Your task to perform on an android device: Open Chrome and go to the settings page Image 0: 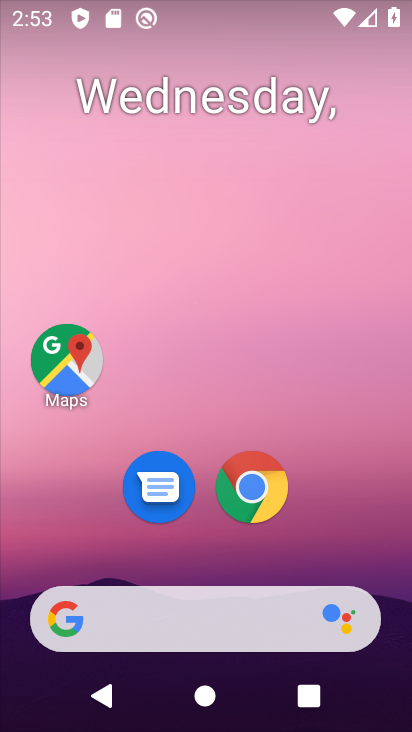
Step 0: drag from (358, 555) to (353, 156)
Your task to perform on an android device: Open Chrome and go to the settings page Image 1: 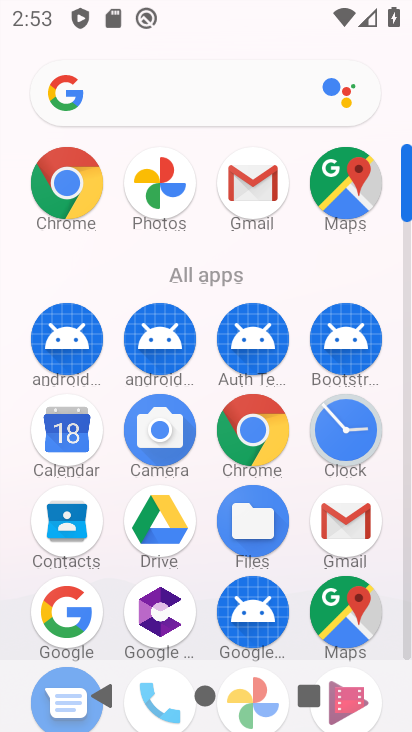
Step 1: drag from (304, 570) to (298, 312)
Your task to perform on an android device: Open Chrome and go to the settings page Image 2: 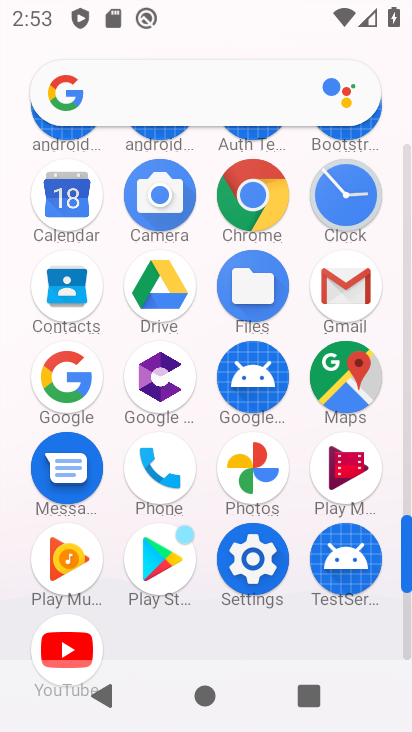
Step 2: click (264, 207)
Your task to perform on an android device: Open Chrome and go to the settings page Image 3: 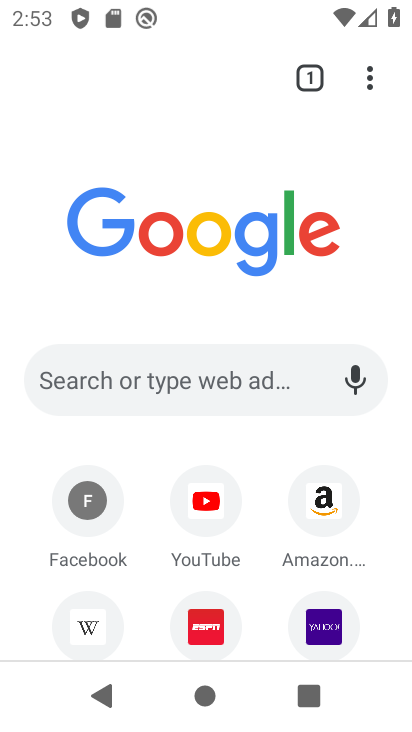
Step 3: click (374, 89)
Your task to perform on an android device: Open Chrome and go to the settings page Image 4: 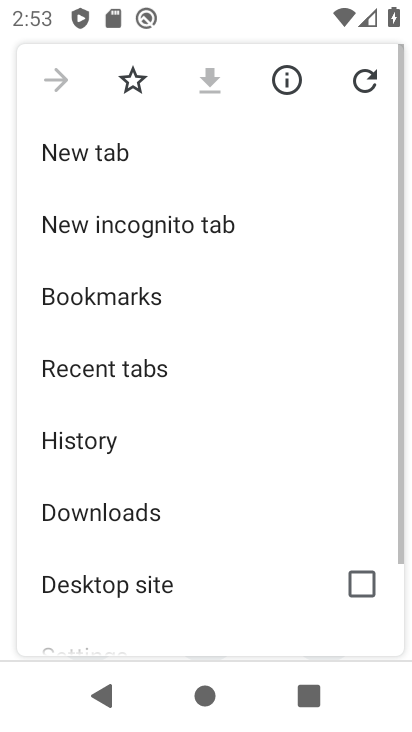
Step 4: drag from (257, 449) to (264, 321)
Your task to perform on an android device: Open Chrome and go to the settings page Image 5: 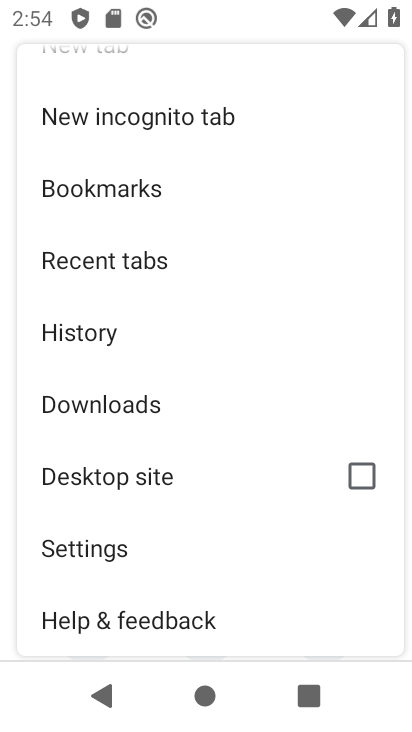
Step 5: drag from (263, 459) to (279, 359)
Your task to perform on an android device: Open Chrome and go to the settings page Image 6: 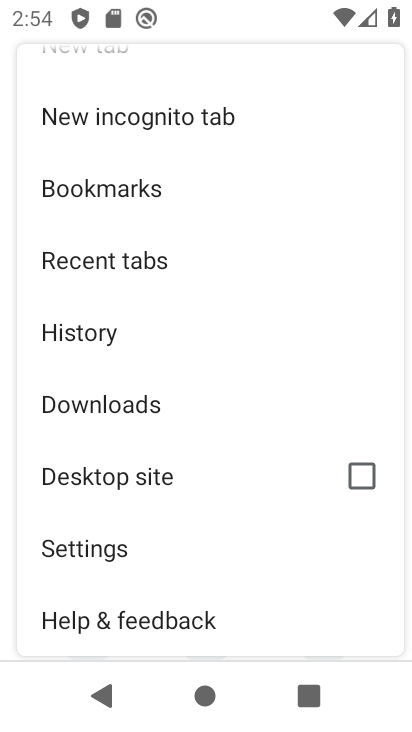
Step 6: drag from (271, 540) to (281, 365)
Your task to perform on an android device: Open Chrome and go to the settings page Image 7: 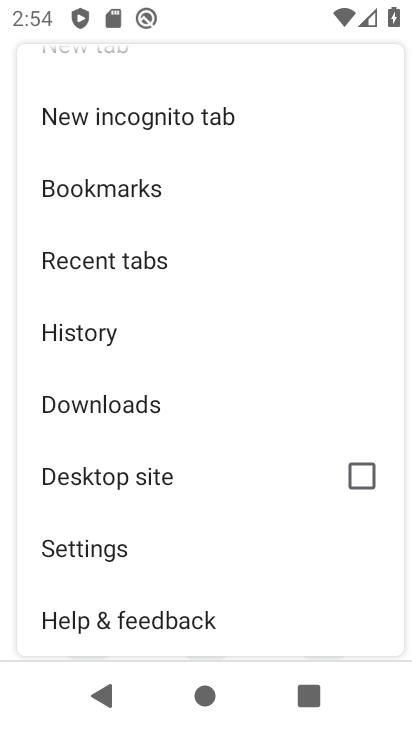
Step 7: drag from (268, 225) to (266, 350)
Your task to perform on an android device: Open Chrome and go to the settings page Image 8: 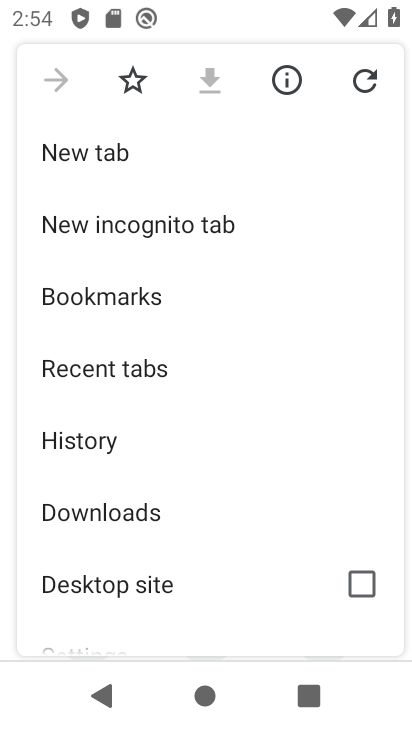
Step 8: drag from (271, 277) to (256, 412)
Your task to perform on an android device: Open Chrome and go to the settings page Image 9: 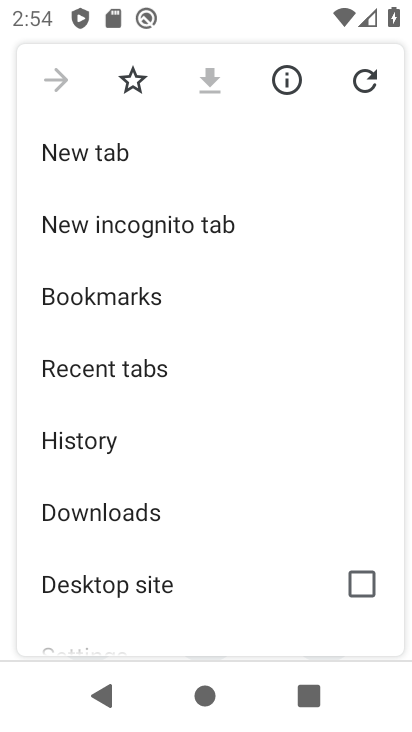
Step 9: drag from (262, 540) to (291, 248)
Your task to perform on an android device: Open Chrome and go to the settings page Image 10: 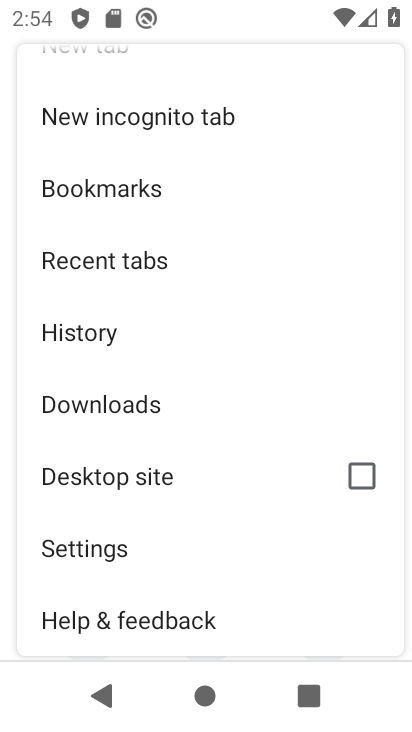
Step 10: click (143, 554)
Your task to perform on an android device: Open Chrome and go to the settings page Image 11: 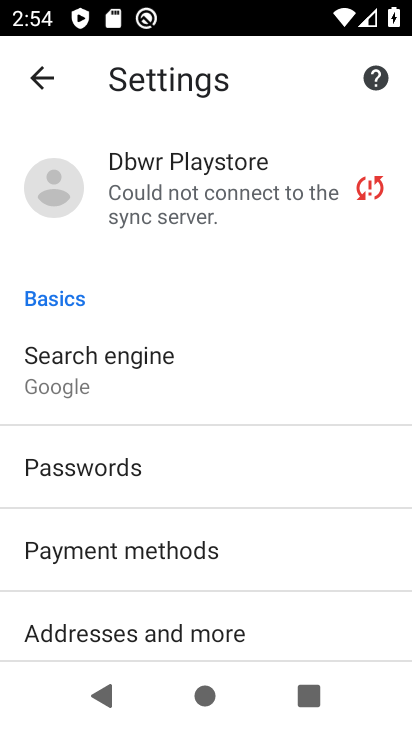
Step 11: task complete